Your task to perform on an android device: choose inbox layout in the gmail app Image 0: 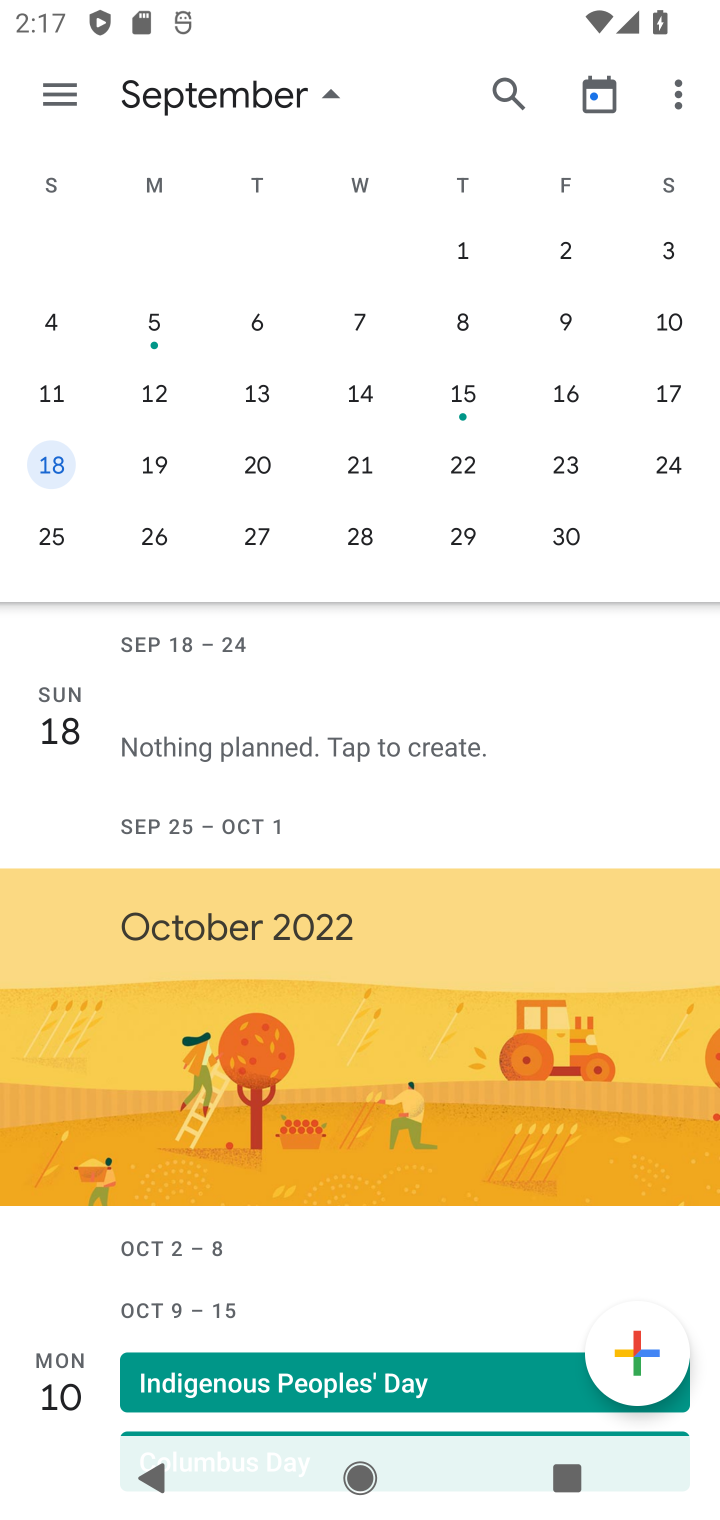
Step 0: press home button
Your task to perform on an android device: choose inbox layout in the gmail app Image 1: 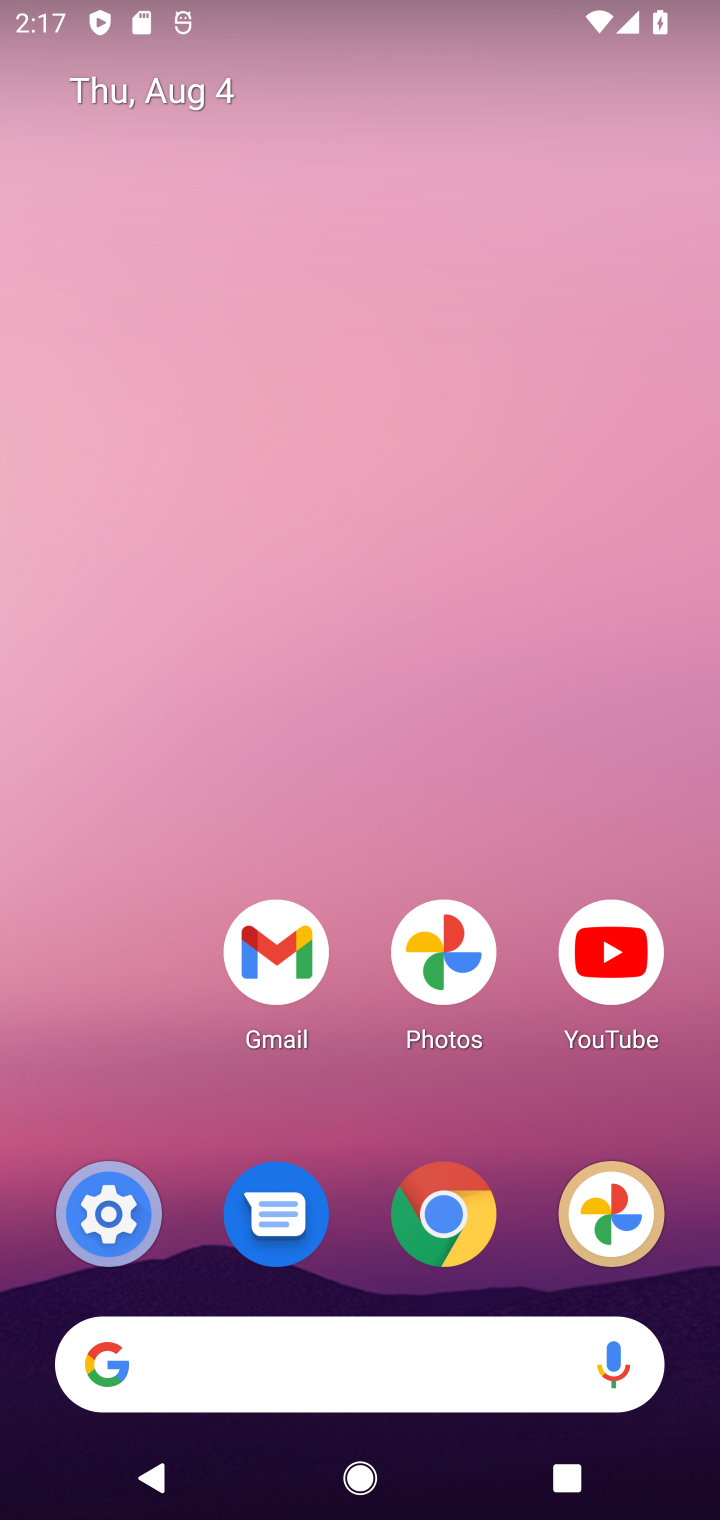
Step 1: drag from (183, 1135) to (181, 147)
Your task to perform on an android device: choose inbox layout in the gmail app Image 2: 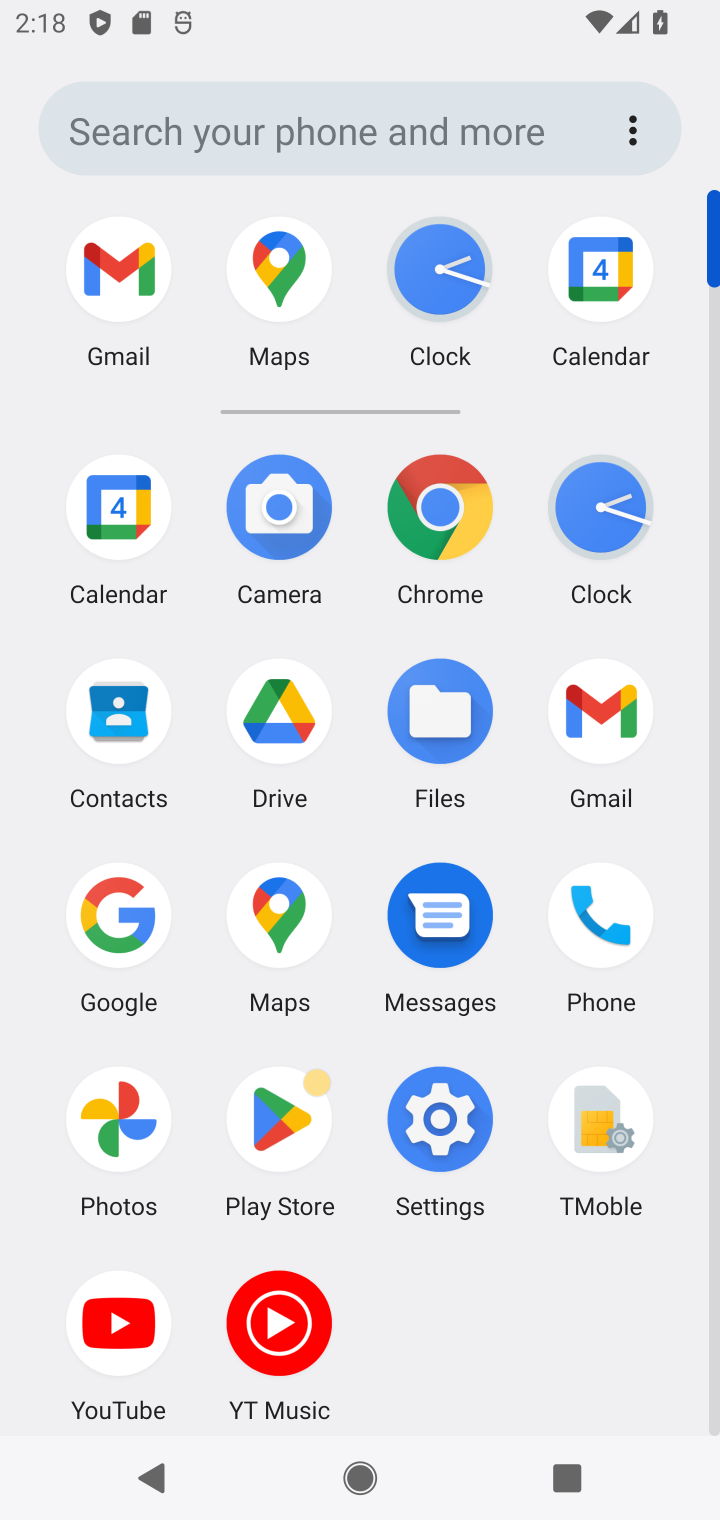
Step 2: click (590, 721)
Your task to perform on an android device: choose inbox layout in the gmail app Image 3: 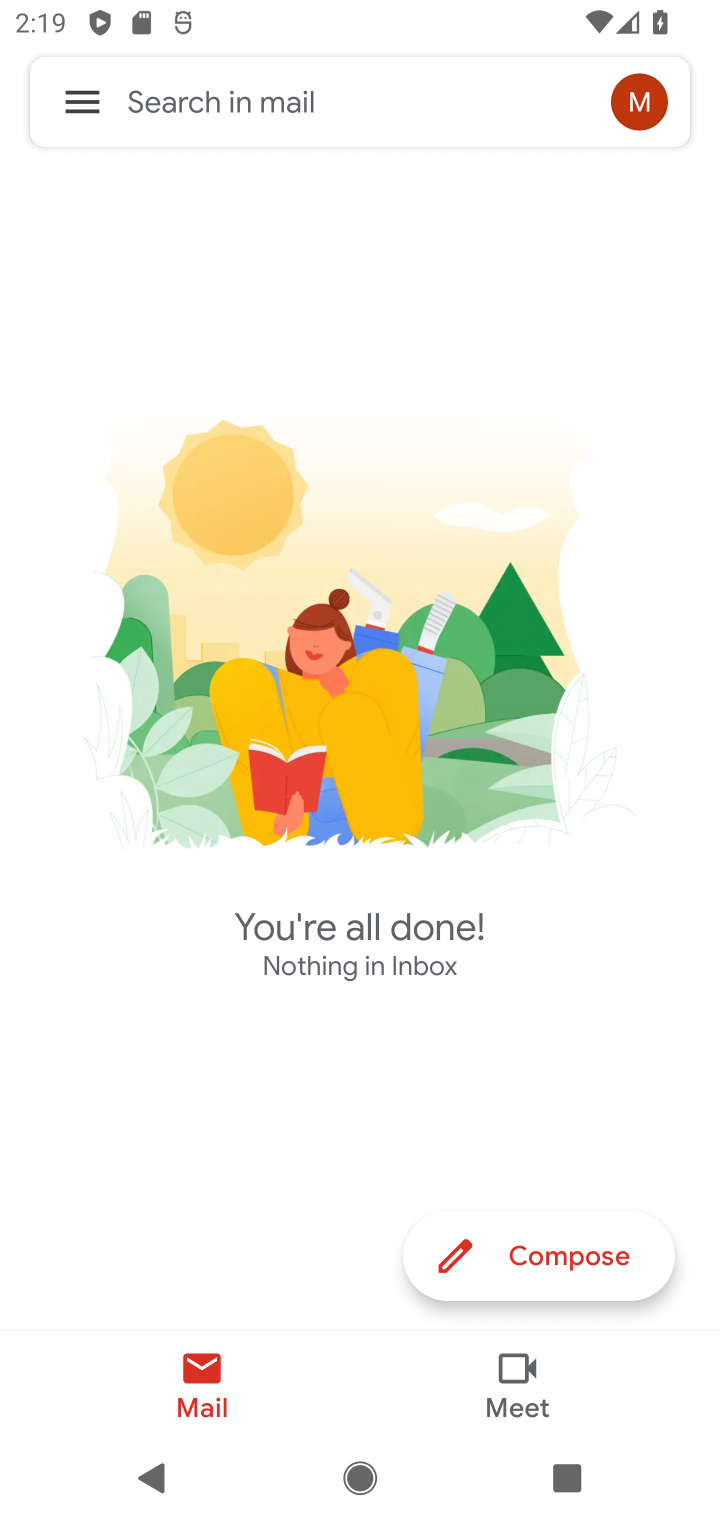
Step 3: task complete